Your task to perform on an android device: See recent photos Image 0: 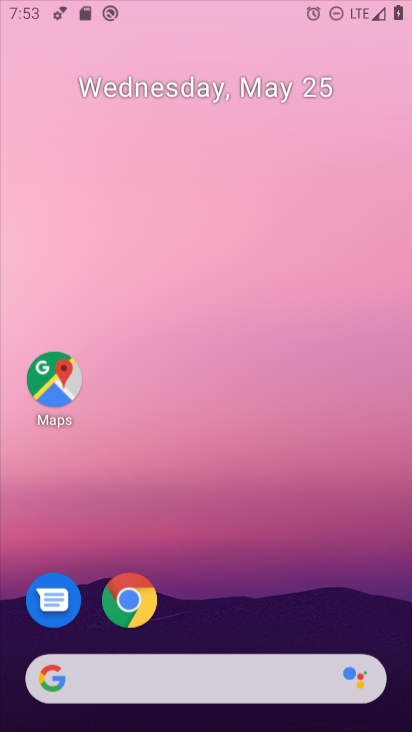
Step 0: press home button
Your task to perform on an android device: See recent photos Image 1: 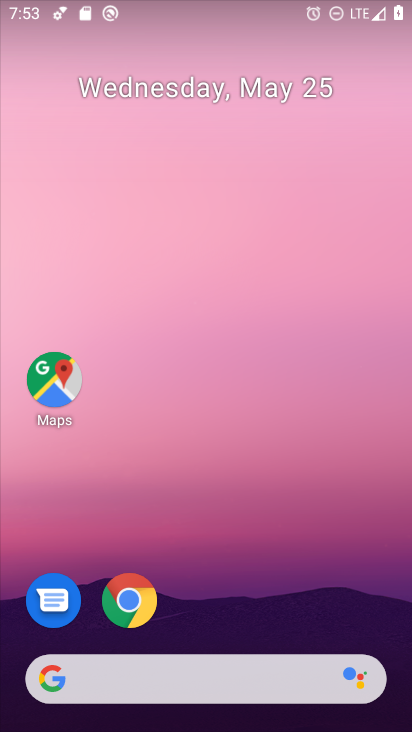
Step 1: click (128, 602)
Your task to perform on an android device: See recent photos Image 2: 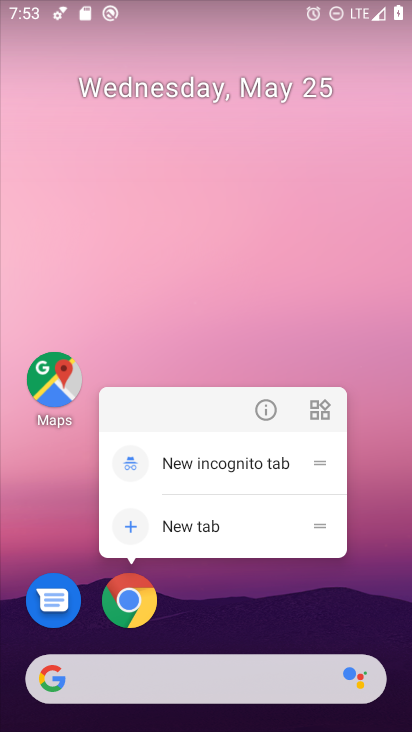
Step 2: click (391, 629)
Your task to perform on an android device: See recent photos Image 3: 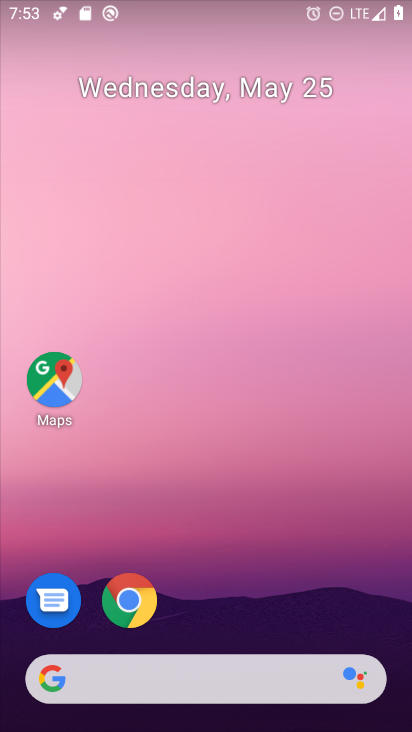
Step 3: drag from (371, 585) to (352, 135)
Your task to perform on an android device: See recent photos Image 4: 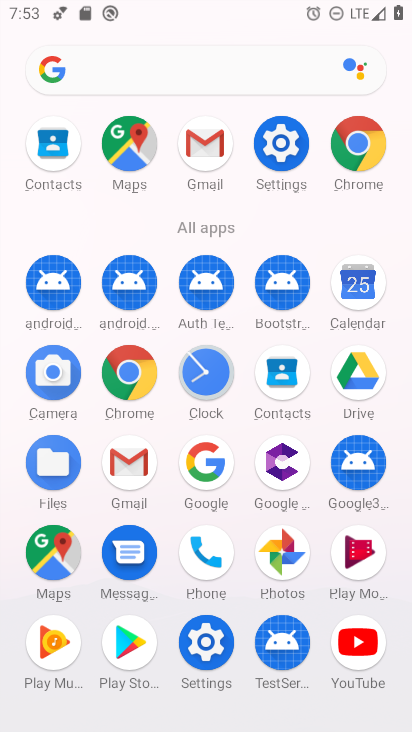
Step 4: click (277, 538)
Your task to perform on an android device: See recent photos Image 5: 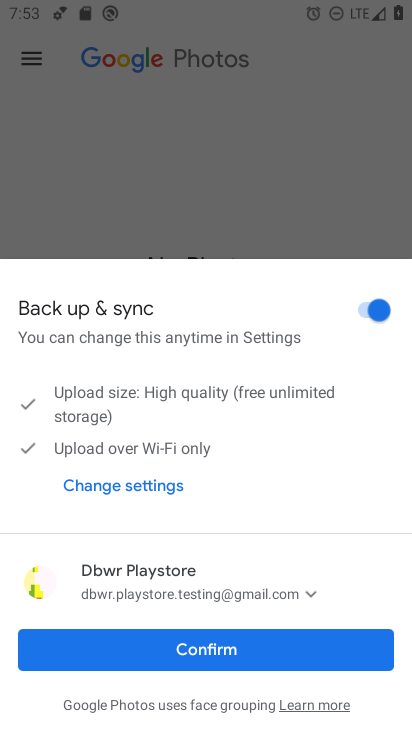
Step 5: click (245, 646)
Your task to perform on an android device: See recent photos Image 6: 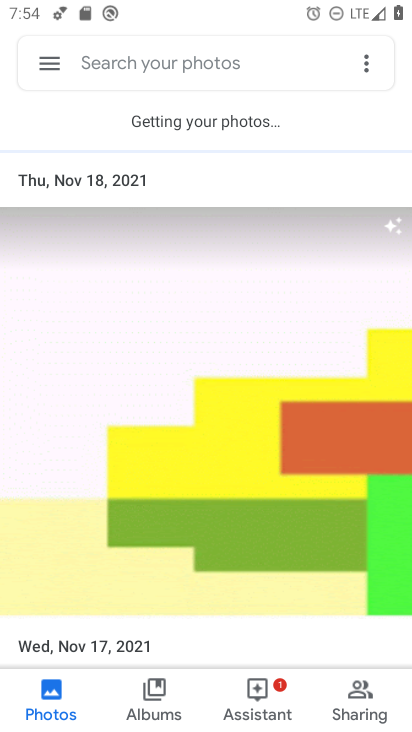
Step 6: task complete